Your task to perform on an android device: toggle priority inbox in the gmail app Image 0: 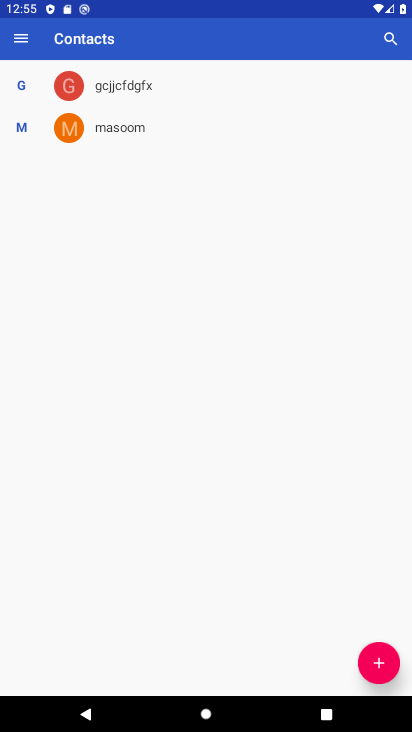
Step 0: press home button
Your task to perform on an android device: toggle priority inbox in the gmail app Image 1: 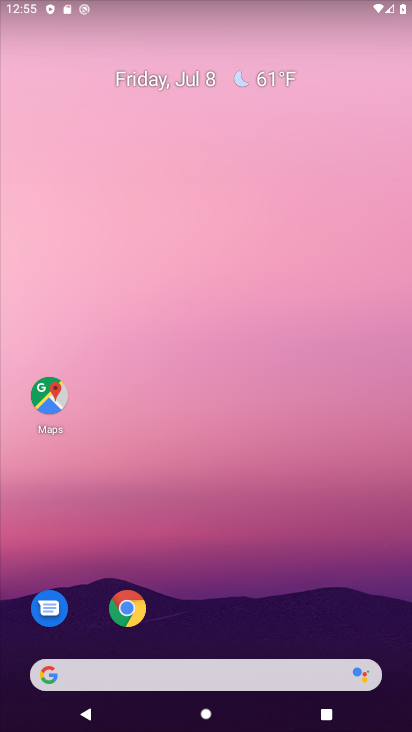
Step 1: drag from (255, 602) to (244, 69)
Your task to perform on an android device: toggle priority inbox in the gmail app Image 2: 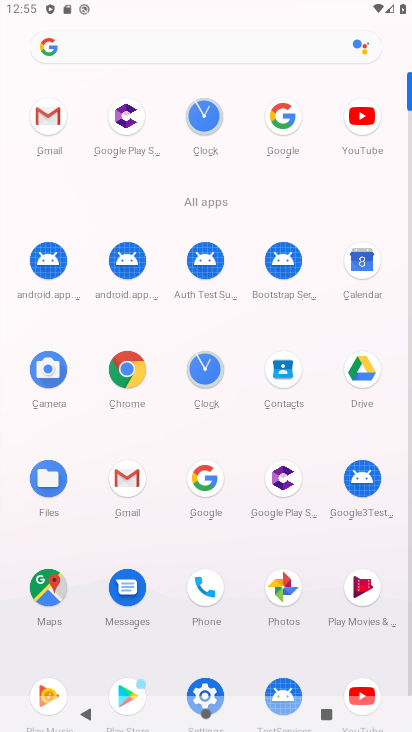
Step 2: click (120, 482)
Your task to perform on an android device: toggle priority inbox in the gmail app Image 3: 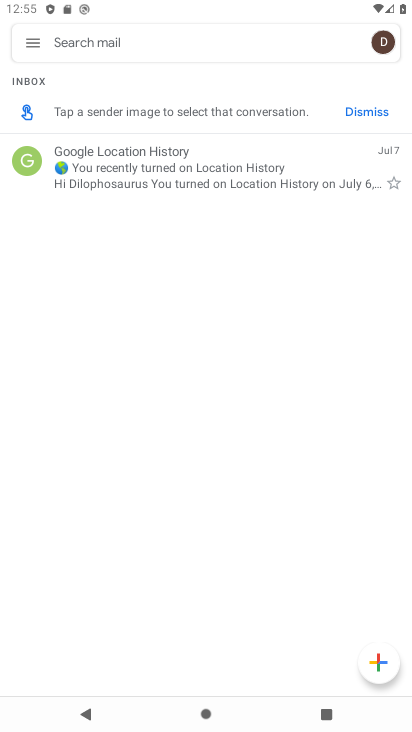
Step 3: click (381, 44)
Your task to perform on an android device: toggle priority inbox in the gmail app Image 4: 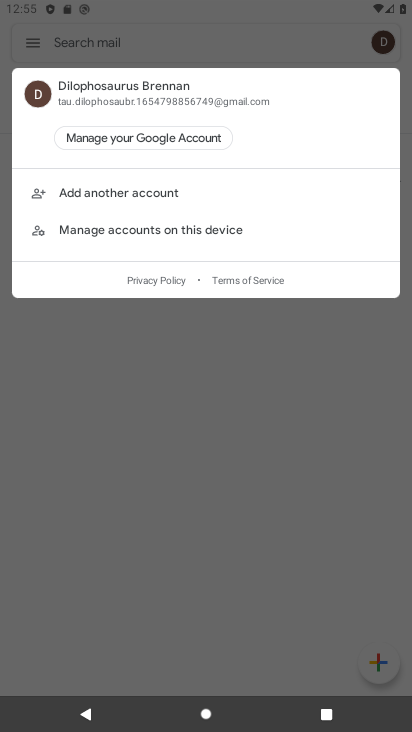
Step 4: click (223, 41)
Your task to perform on an android device: toggle priority inbox in the gmail app Image 5: 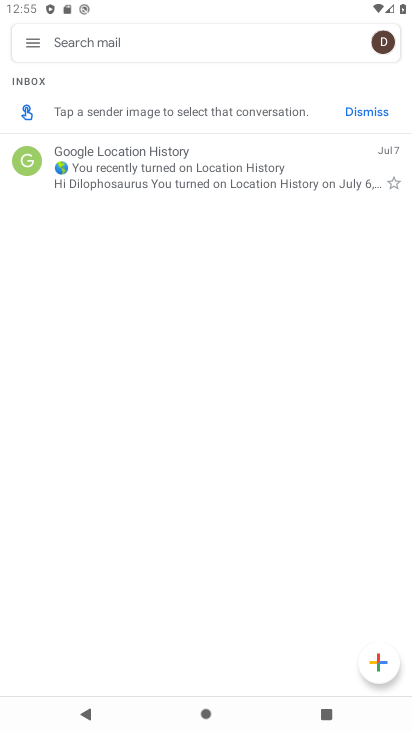
Step 5: click (33, 40)
Your task to perform on an android device: toggle priority inbox in the gmail app Image 6: 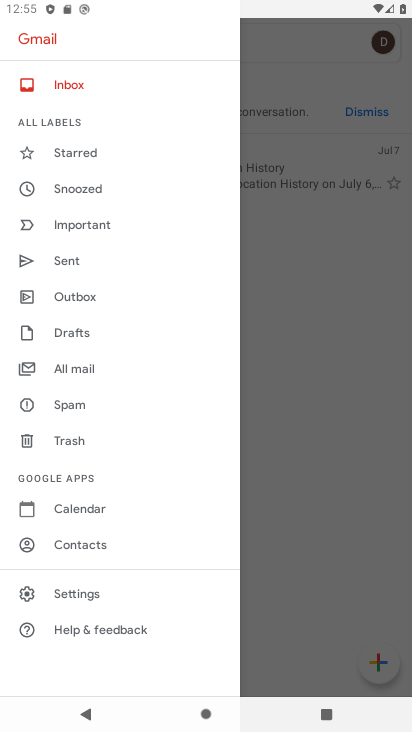
Step 6: click (72, 591)
Your task to perform on an android device: toggle priority inbox in the gmail app Image 7: 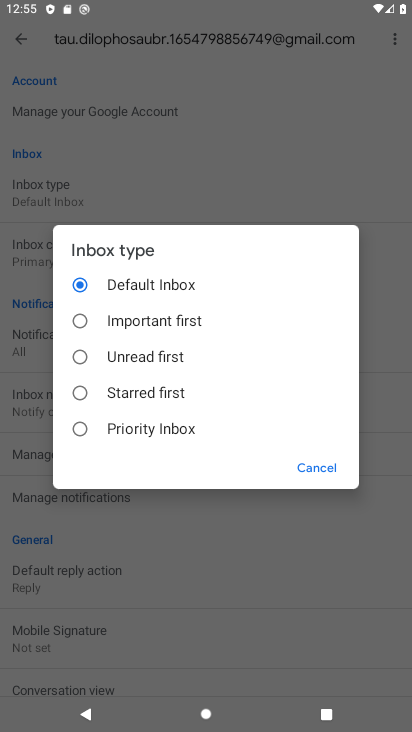
Step 7: click (76, 425)
Your task to perform on an android device: toggle priority inbox in the gmail app Image 8: 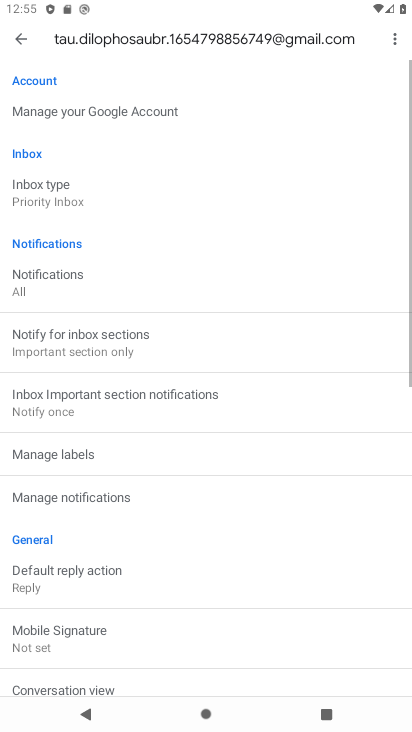
Step 8: task complete